Your task to perform on an android device: Show me the alarms in the clock app Image 0: 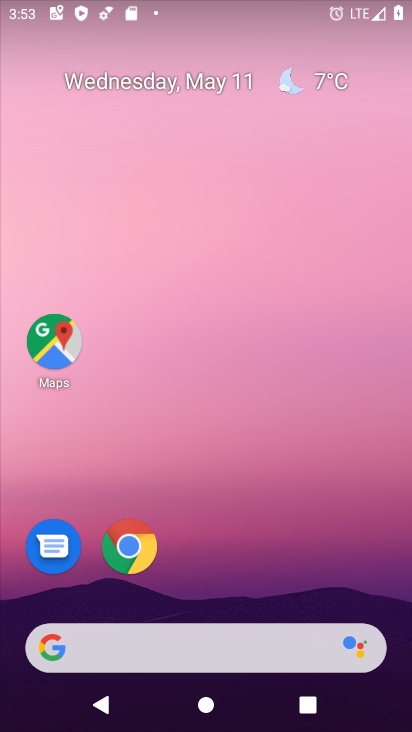
Step 0: drag from (268, 635) to (399, 0)
Your task to perform on an android device: Show me the alarms in the clock app Image 1: 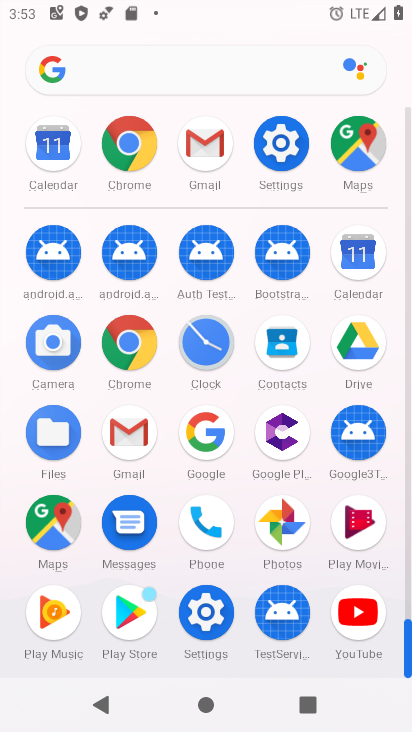
Step 1: click (133, 360)
Your task to perform on an android device: Show me the alarms in the clock app Image 2: 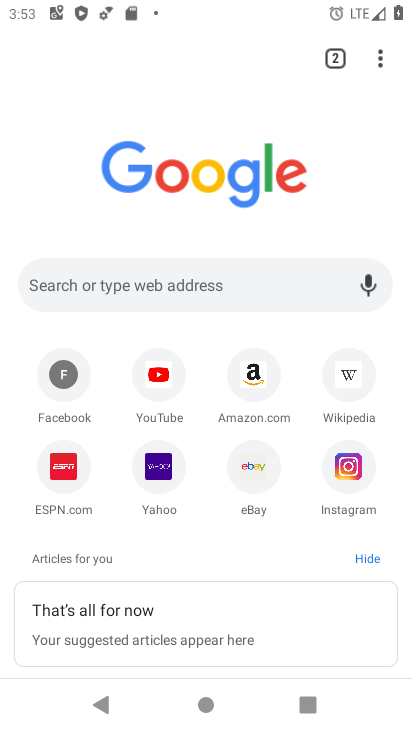
Step 2: press home button
Your task to perform on an android device: Show me the alarms in the clock app Image 3: 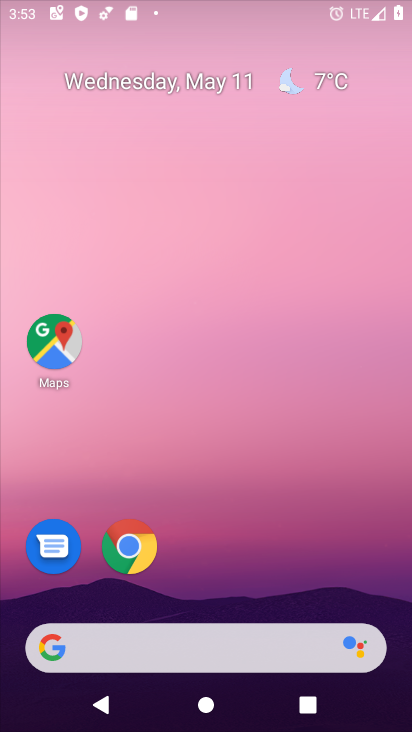
Step 3: drag from (249, 644) to (320, 13)
Your task to perform on an android device: Show me the alarms in the clock app Image 4: 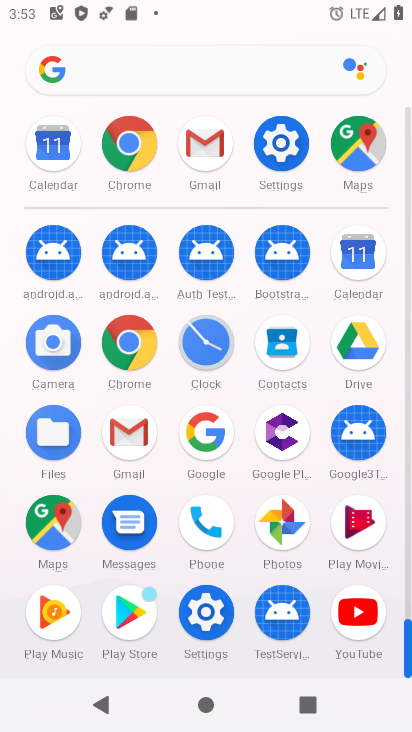
Step 4: click (212, 346)
Your task to perform on an android device: Show me the alarms in the clock app Image 5: 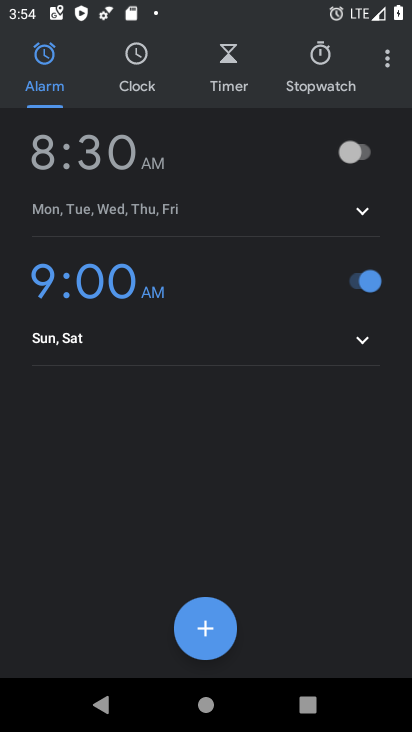
Step 5: task complete